Your task to perform on an android device: turn vacation reply on in the gmail app Image 0: 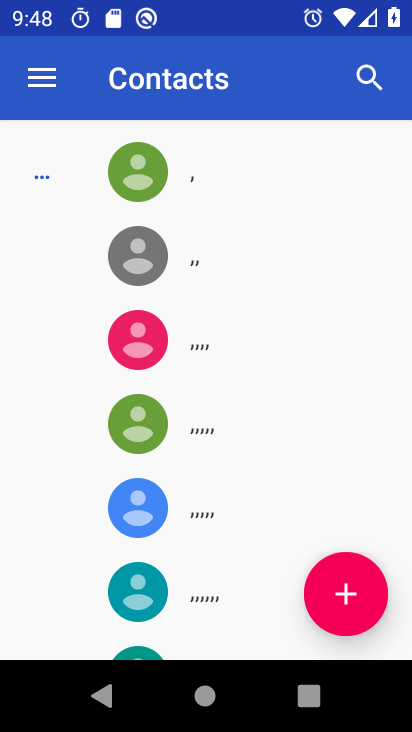
Step 0: press home button
Your task to perform on an android device: turn vacation reply on in the gmail app Image 1: 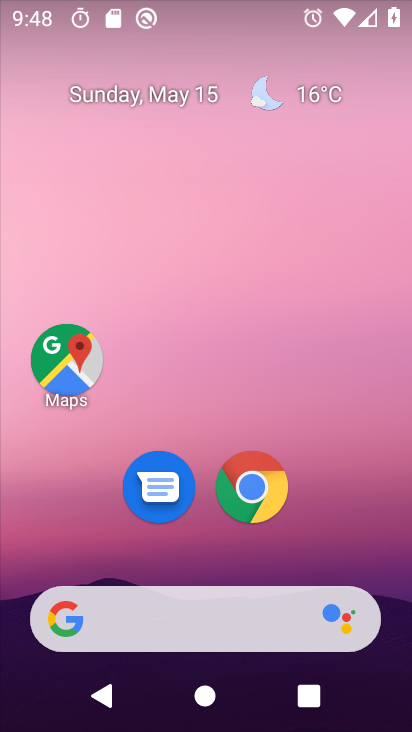
Step 1: click (333, 145)
Your task to perform on an android device: turn vacation reply on in the gmail app Image 2: 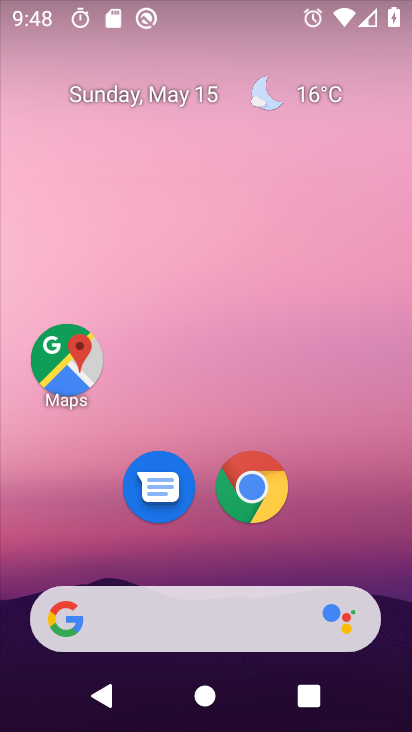
Step 2: drag from (391, 550) to (339, 110)
Your task to perform on an android device: turn vacation reply on in the gmail app Image 3: 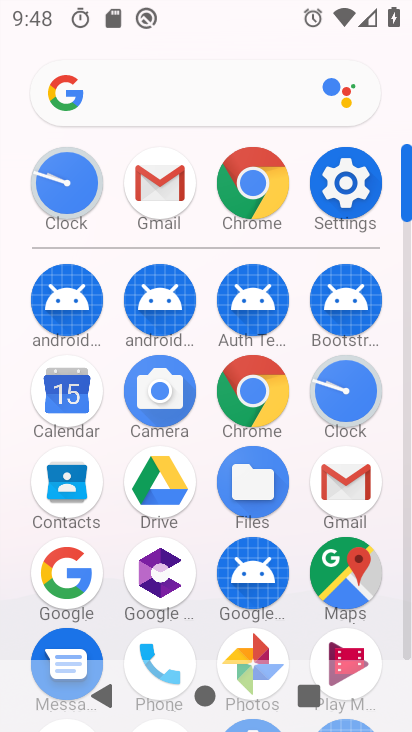
Step 3: click (342, 484)
Your task to perform on an android device: turn vacation reply on in the gmail app Image 4: 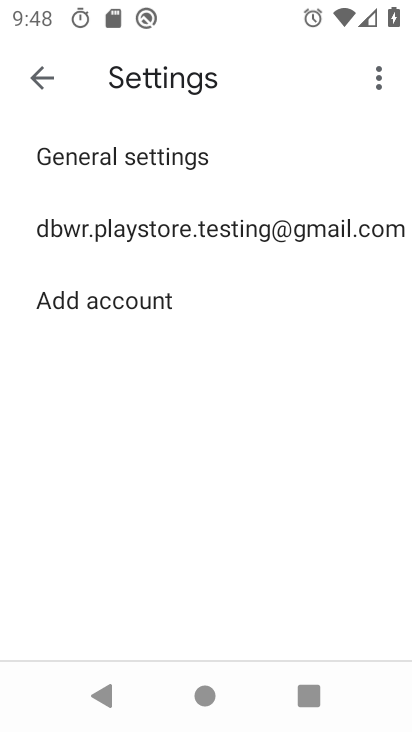
Step 4: click (172, 220)
Your task to perform on an android device: turn vacation reply on in the gmail app Image 5: 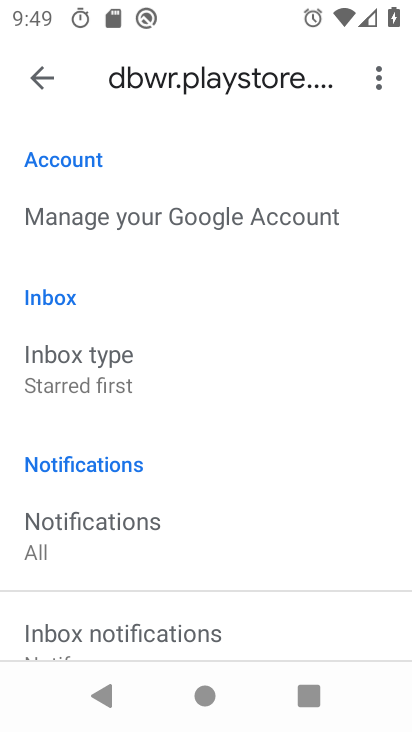
Step 5: task complete